Your task to perform on an android device: turn on airplane mode Image 0: 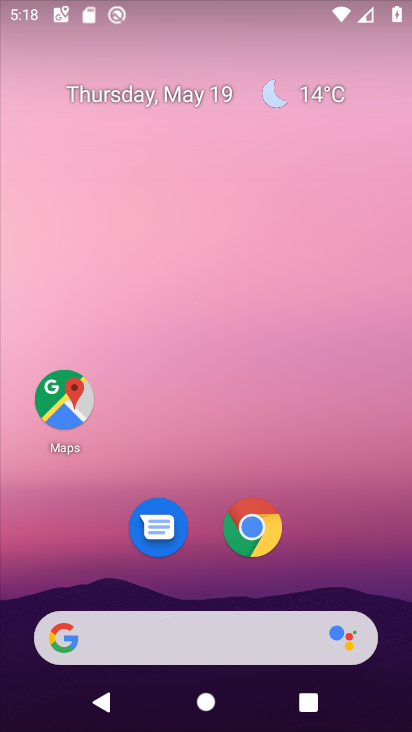
Step 0: drag from (385, 531) to (254, 5)
Your task to perform on an android device: turn on airplane mode Image 1: 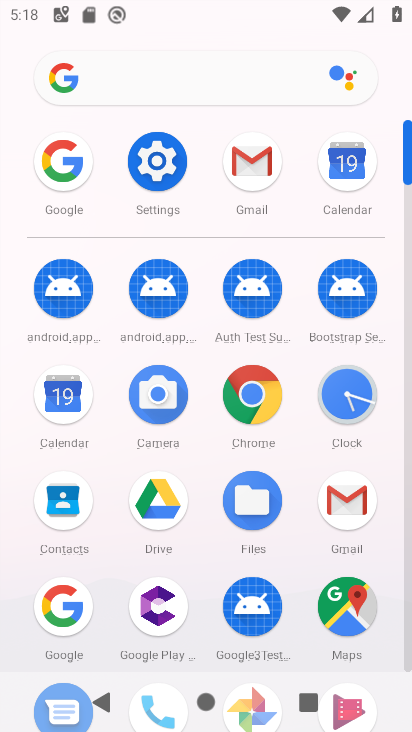
Step 1: click (155, 208)
Your task to perform on an android device: turn on airplane mode Image 2: 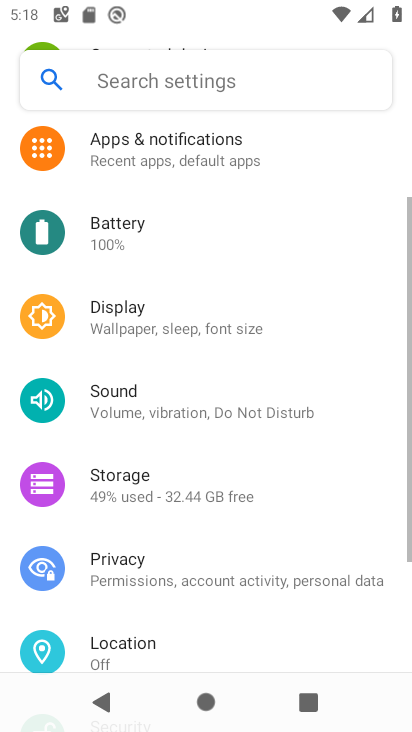
Step 2: drag from (227, 211) to (290, 681)
Your task to perform on an android device: turn on airplane mode Image 3: 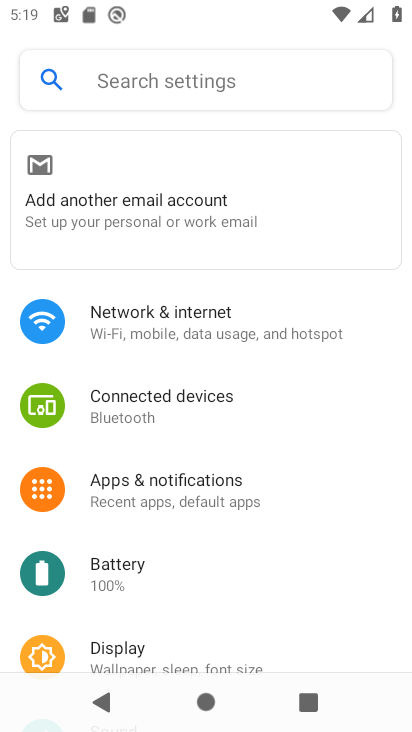
Step 3: click (225, 334)
Your task to perform on an android device: turn on airplane mode Image 4: 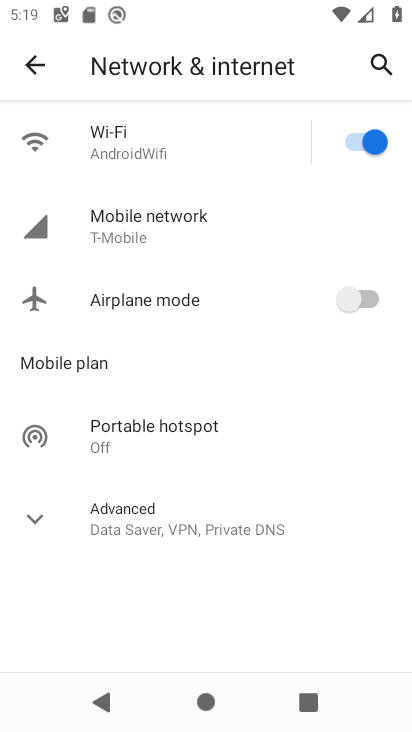
Step 4: click (352, 294)
Your task to perform on an android device: turn on airplane mode Image 5: 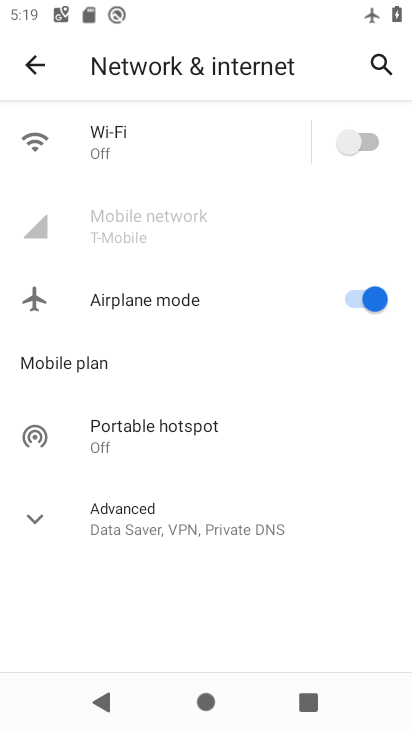
Step 5: task complete